Your task to perform on an android device: Go to wifi settings Image 0: 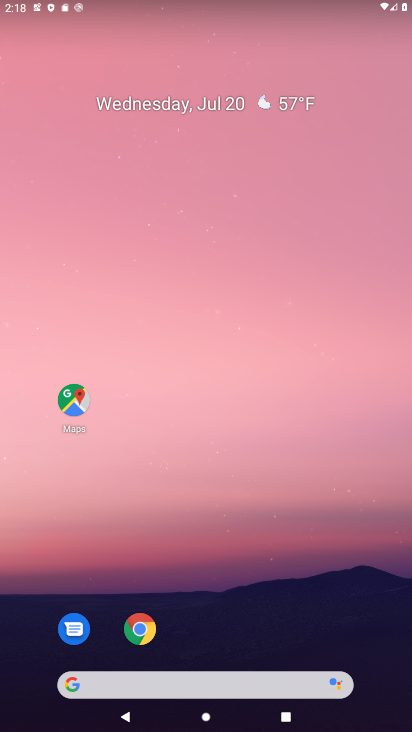
Step 0: drag from (209, 644) to (192, 164)
Your task to perform on an android device: Go to wifi settings Image 1: 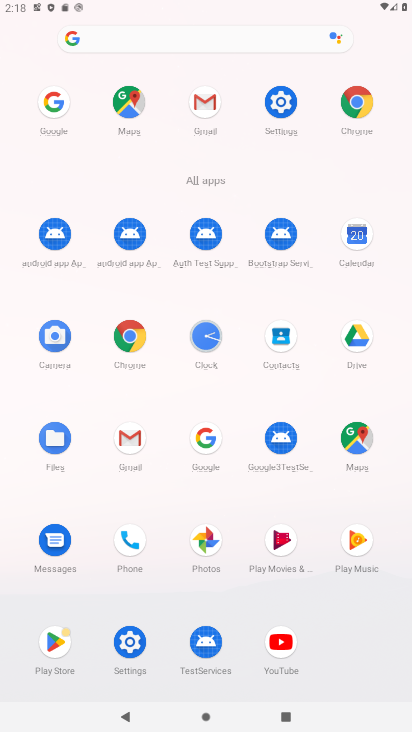
Step 1: click (273, 102)
Your task to perform on an android device: Go to wifi settings Image 2: 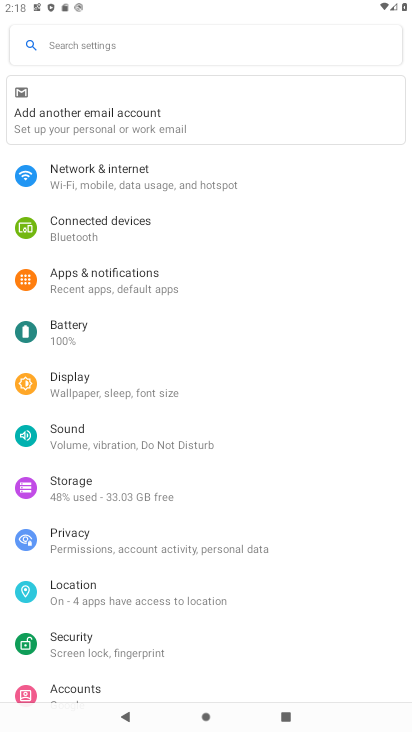
Step 2: click (116, 165)
Your task to perform on an android device: Go to wifi settings Image 3: 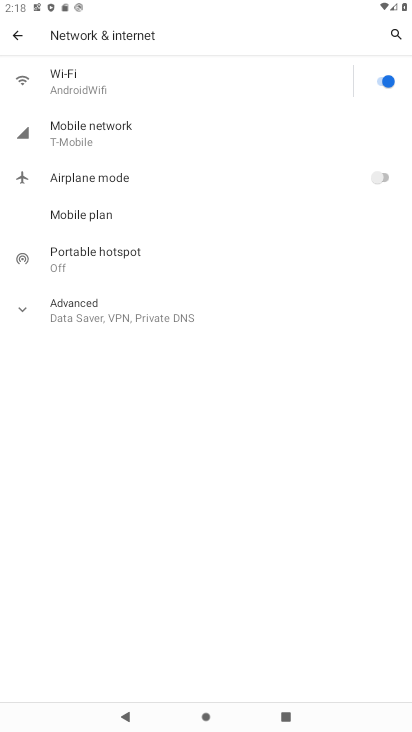
Step 3: click (78, 78)
Your task to perform on an android device: Go to wifi settings Image 4: 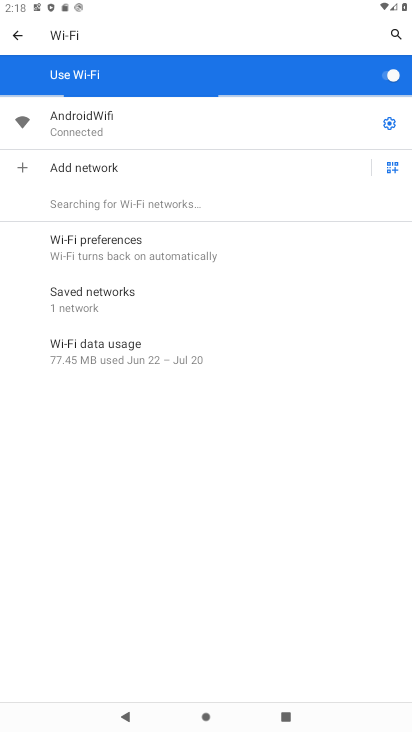
Step 4: task complete